Your task to perform on an android device: toggle notification dots Image 0: 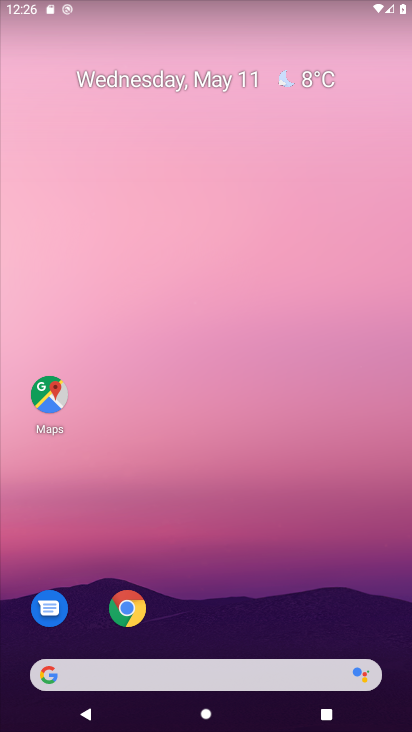
Step 0: drag from (254, 606) to (364, 28)
Your task to perform on an android device: toggle notification dots Image 1: 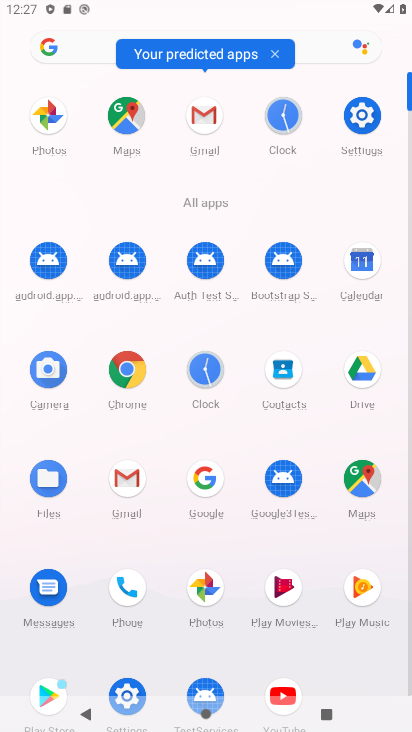
Step 1: click (360, 125)
Your task to perform on an android device: toggle notification dots Image 2: 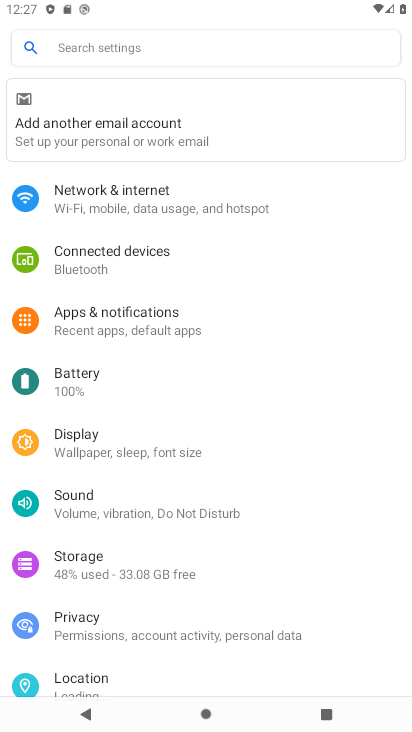
Step 2: click (135, 321)
Your task to perform on an android device: toggle notification dots Image 3: 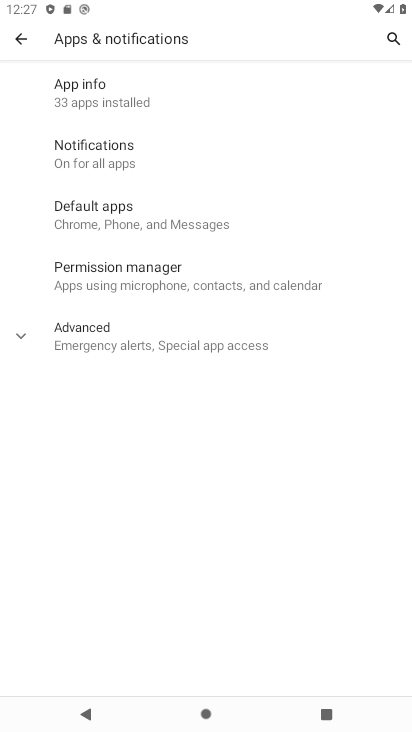
Step 3: click (123, 154)
Your task to perform on an android device: toggle notification dots Image 4: 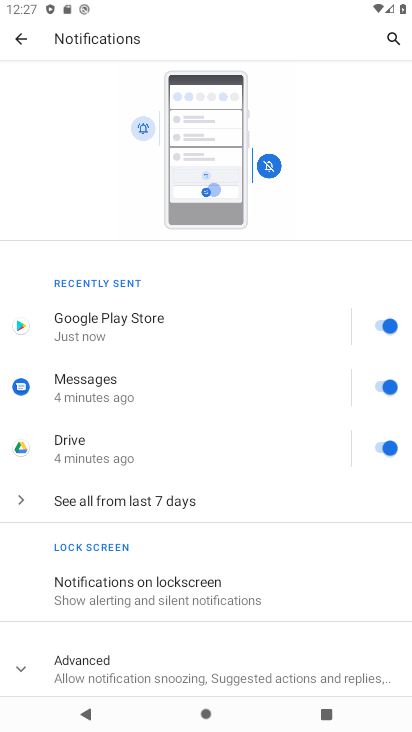
Step 4: drag from (271, 608) to (334, 275)
Your task to perform on an android device: toggle notification dots Image 5: 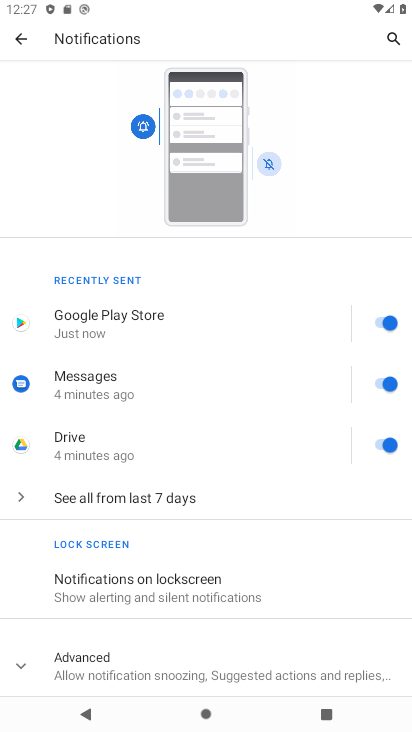
Step 5: click (262, 659)
Your task to perform on an android device: toggle notification dots Image 6: 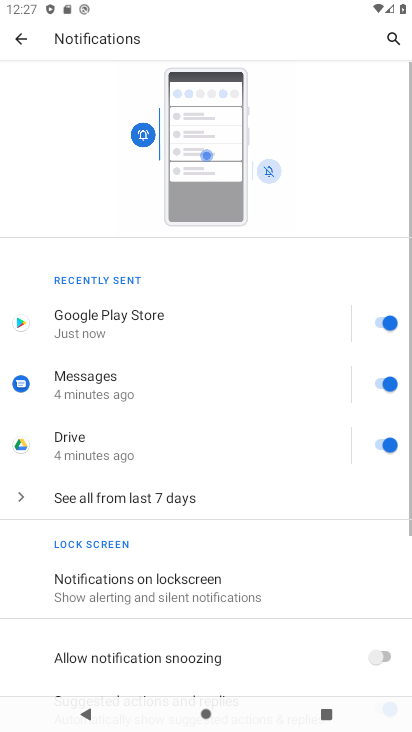
Step 6: drag from (259, 652) to (270, 318)
Your task to perform on an android device: toggle notification dots Image 7: 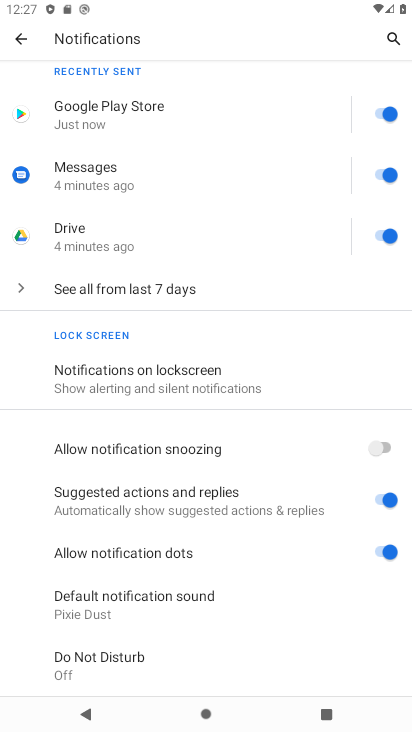
Step 7: click (366, 552)
Your task to perform on an android device: toggle notification dots Image 8: 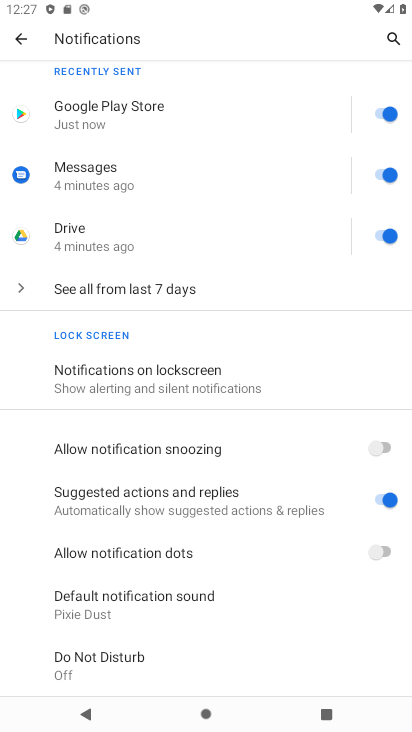
Step 8: task complete